Your task to perform on an android device: Go to battery settings Image 0: 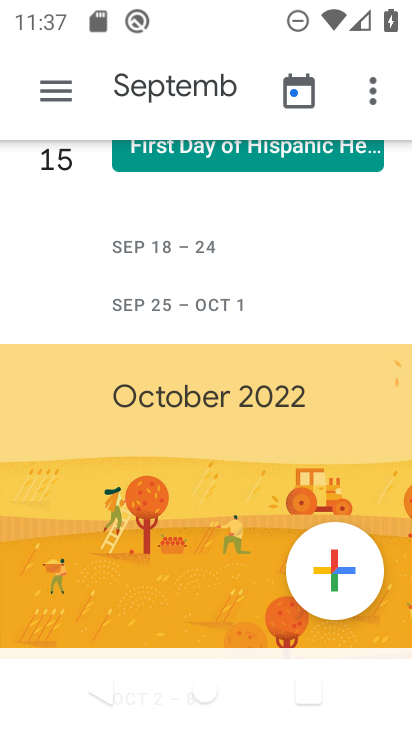
Step 0: press home button
Your task to perform on an android device: Go to battery settings Image 1: 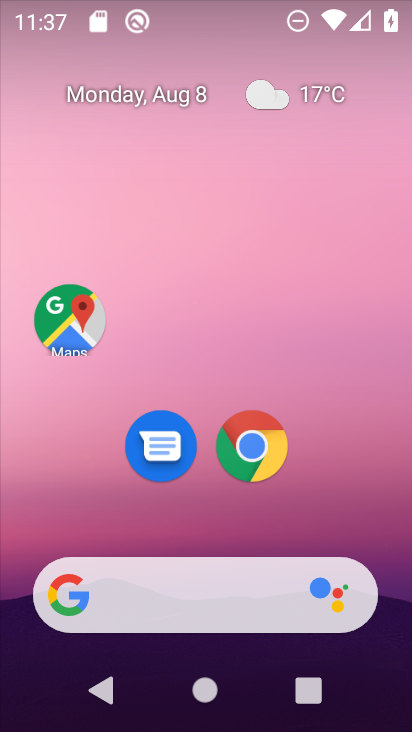
Step 1: drag from (401, 610) to (371, 84)
Your task to perform on an android device: Go to battery settings Image 2: 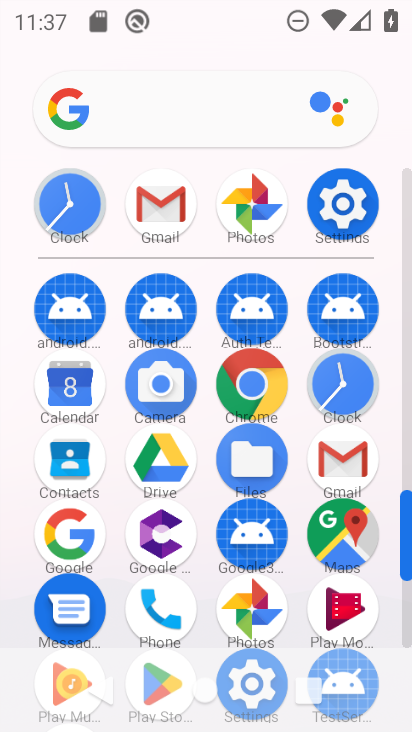
Step 2: click (406, 621)
Your task to perform on an android device: Go to battery settings Image 3: 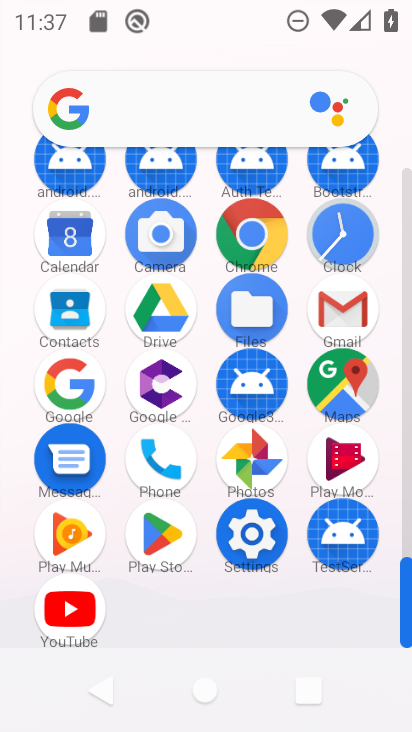
Step 3: click (256, 530)
Your task to perform on an android device: Go to battery settings Image 4: 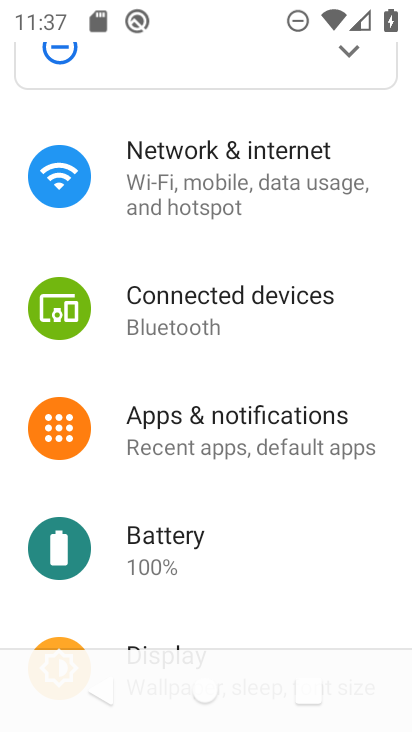
Step 4: click (161, 538)
Your task to perform on an android device: Go to battery settings Image 5: 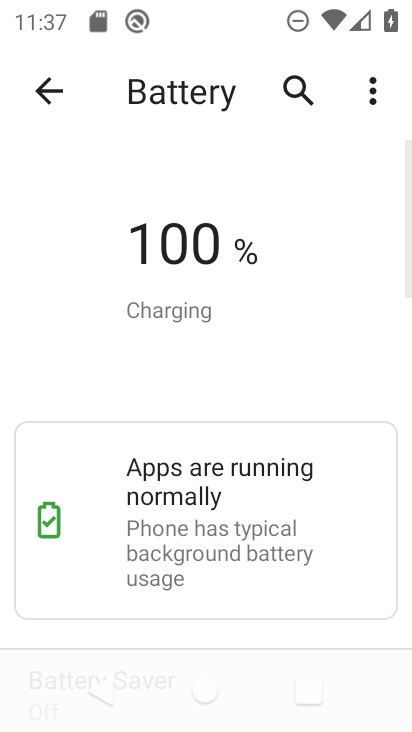
Step 5: task complete